Your task to perform on an android device: Add logitech g910 to the cart on amazon, then select checkout. Image 0: 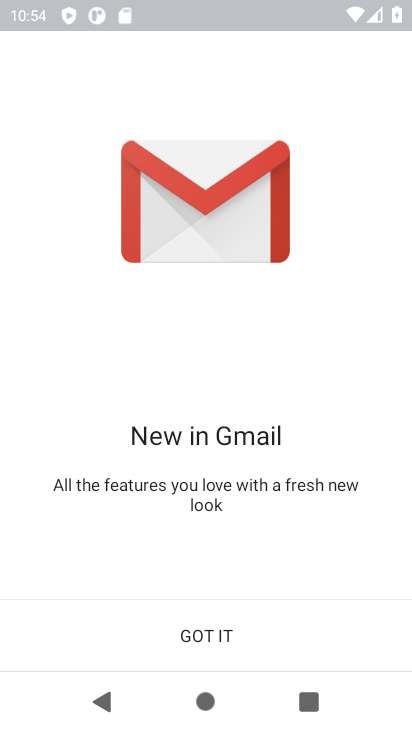
Step 0: press home button
Your task to perform on an android device: Add logitech g910 to the cart on amazon, then select checkout. Image 1: 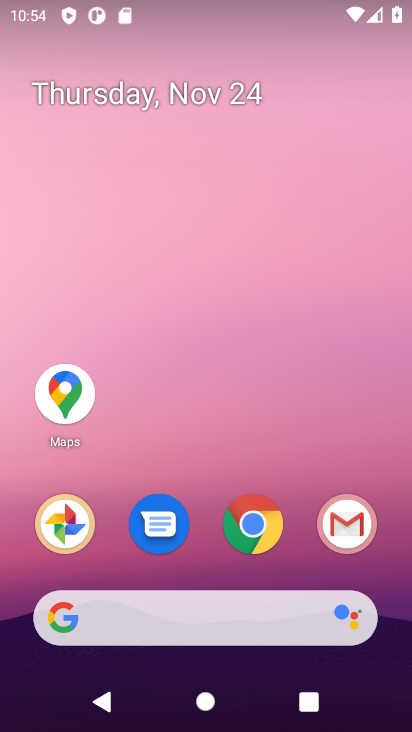
Step 1: click (250, 533)
Your task to perform on an android device: Add logitech g910 to the cart on amazon, then select checkout. Image 2: 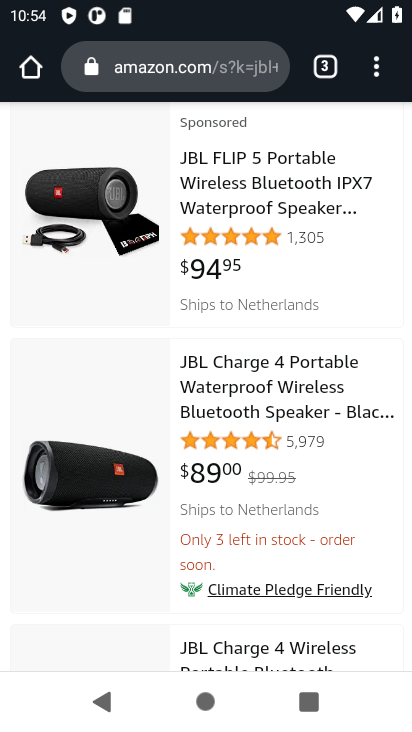
Step 2: drag from (105, 195) to (93, 564)
Your task to perform on an android device: Add logitech g910 to the cart on amazon, then select checkout. Image 3: 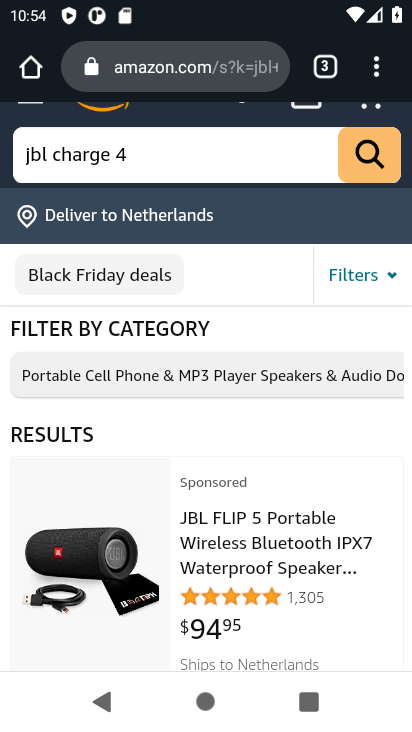
Step 3: click (164, 159)
Your task to perform on an android device: Add logitech g910 to the cart on amazon, then select checkout. Image 4: 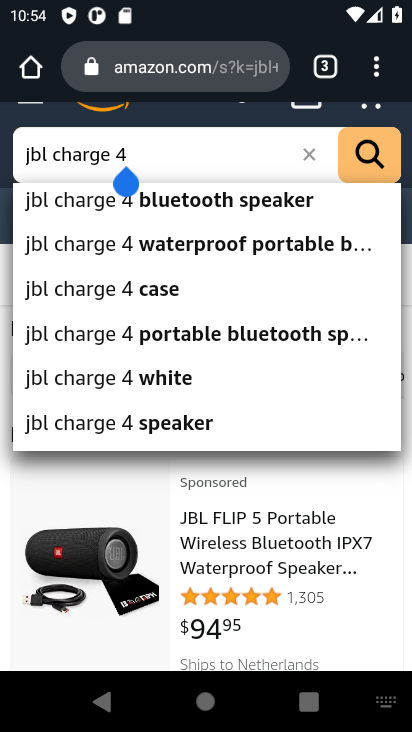
Step 4: click (307, 158)
Your task to perform on an android device: Add logitech g910 to the cart on amazon, then select checkout. Image 5: 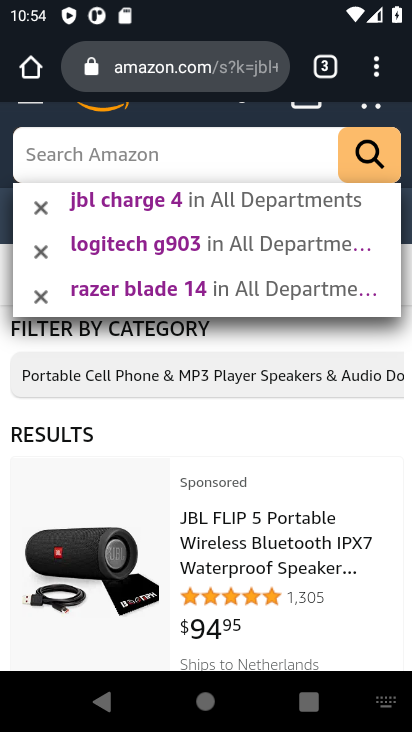
Step 5: type "logitech g910 "
Your task to perform on an android device: Add logitech g910 to the cart on amazon, then select checkout. Image 6: 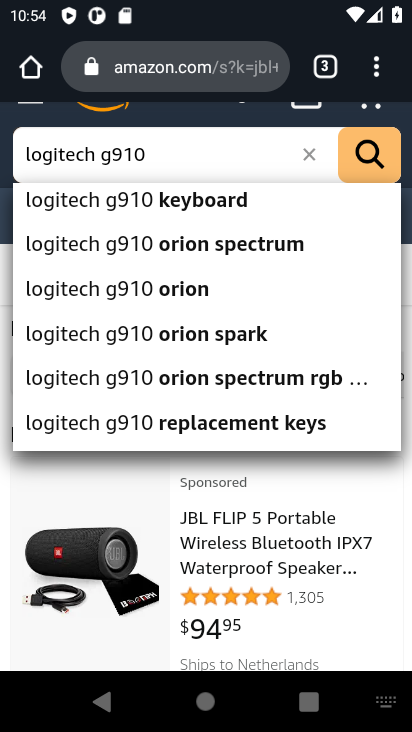
Step 6: click (364, 155)
Your task to perform on an android device: Add logitech g910 to the cart on amazon, then select checkout. Image 7: 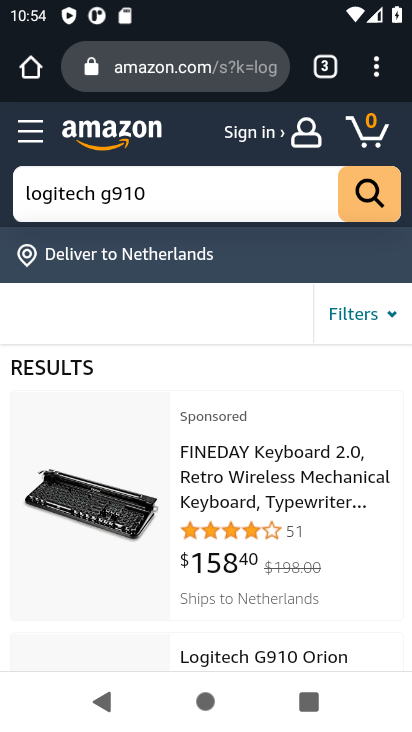
Step 7: drag from (174, 581) to (155, 345)
Your task to perform on an android device: Add logitech g910 to the cart on amazon, then select checkout. Image 8: 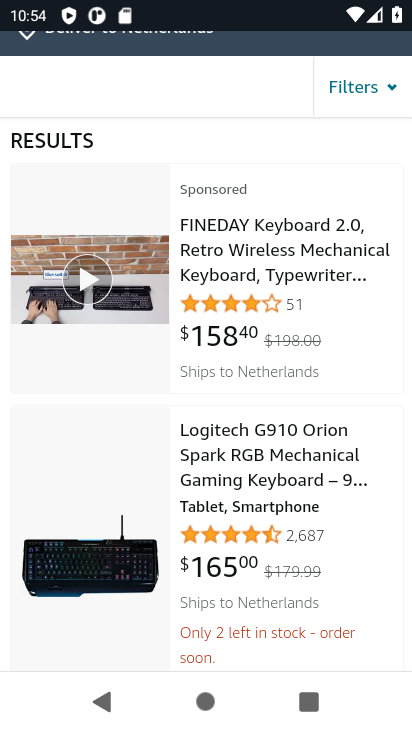
Step 8: click (264, 508)
Your task to perform on an android device: Add logitech g910 to the cart on amazon, then select checkout. Image 9: 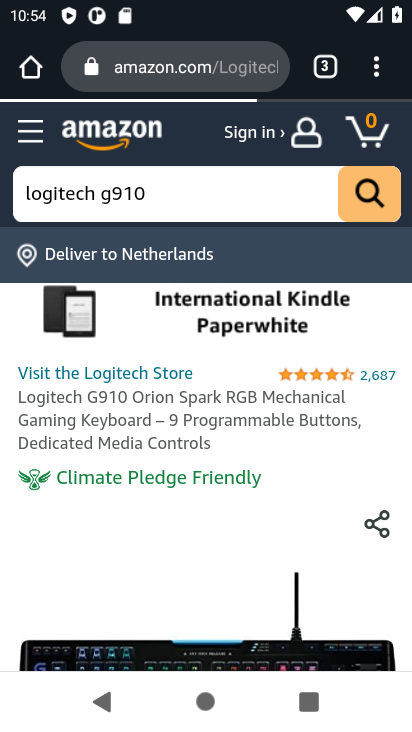
Step 9: drag from (182, 573) to (182, 199)
Your task to perform on an android device: Add logitech g910 to the cart on amazon, then select checkout. Image 10: 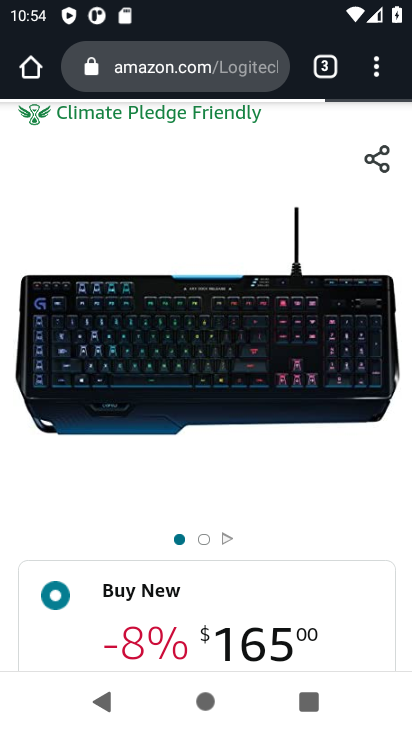
Step 10: drag from (190, 535) to (184, 267)
Your task to perform on an android device: Add logitech g910 to the cart on amazon, then select checkout. Image 11: 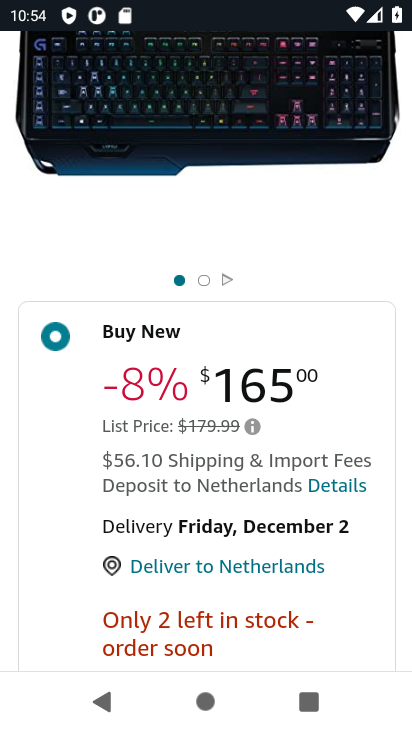
Step 11: drag from (175, 449) to (138, 207)
Your task to perform on an android device: Add logitech g910 to the cart on amazon, then select checkout. Image 12: 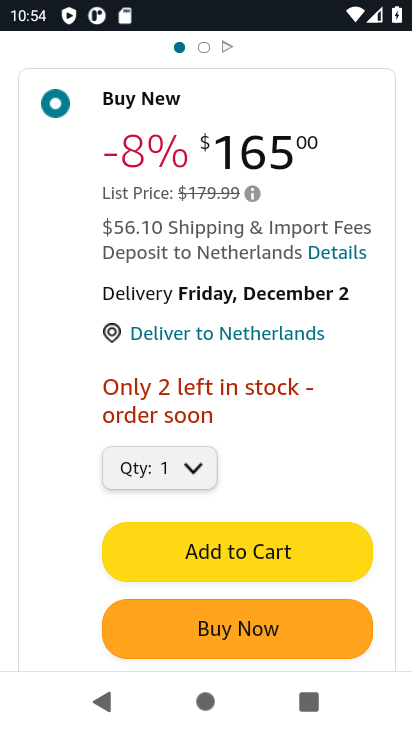
Step 12: click (226, 559)
Your task to perform on an android device: Add logitech g910 to the cart on amazon, then select checkout. Image 13: 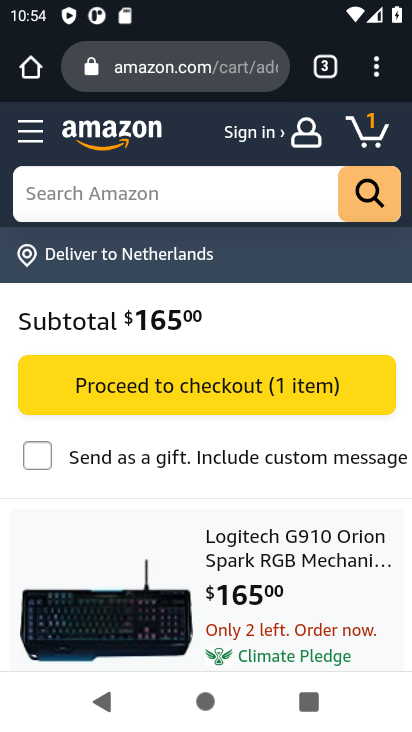
Step 13: click (212, 369)
Your task to perform on an android device: Add logitech g910 to the cart on amazon, then select checkout. Image 14: 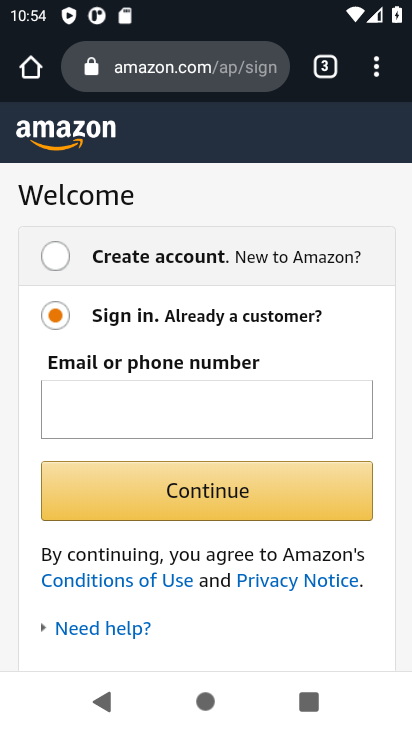
Step 14: task complete